Your task to perform on an android device: set an alarm Image 0: 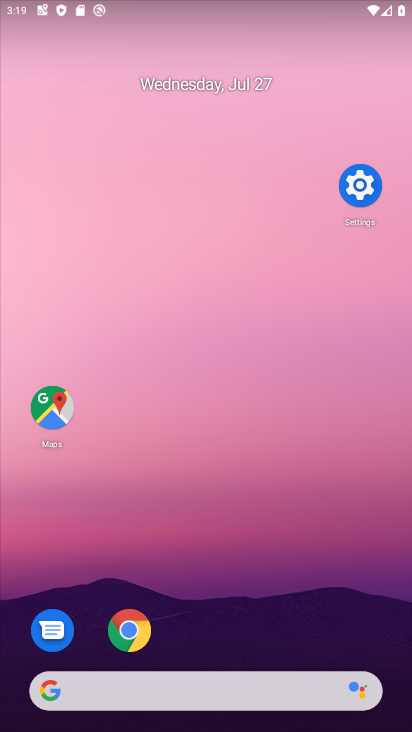
Step 0: press home button
Your task to perform on an android device: set an alarm Image 1: 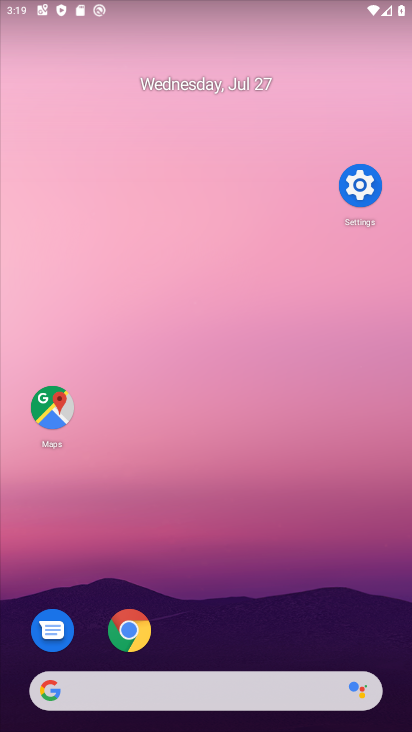
Step 1: press home button
Your task to perform on an android device: set an alarm Image 2: 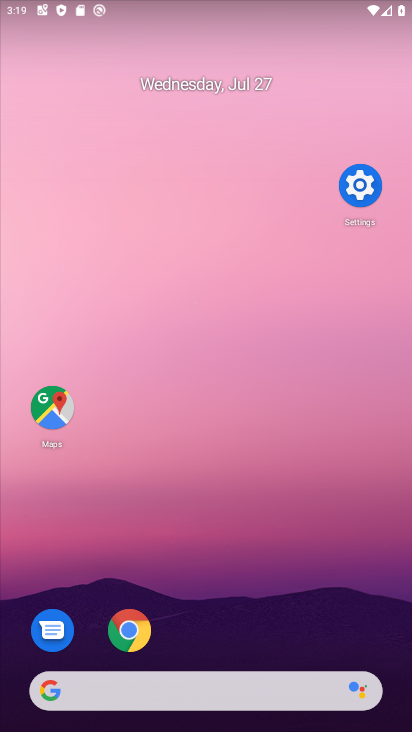
Step 2: drag from (273, 615) to (214, 74)
Your task to perform on an android device: set an alarm Image 3: 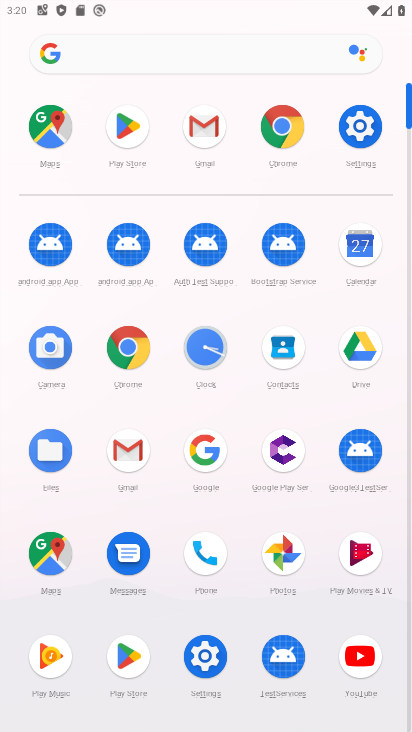
Step 3: click (193, 347)
Your task to perform on an android device: set an alarm Image 4: 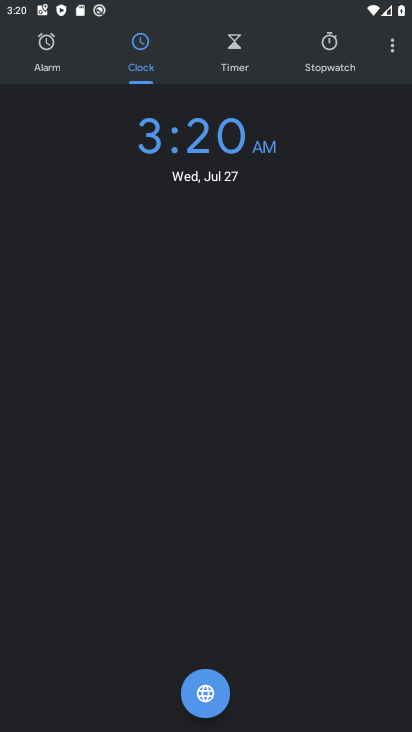
Step 4: click (45, 43)
Your task to perform on an android device: set an alarm Image 5: 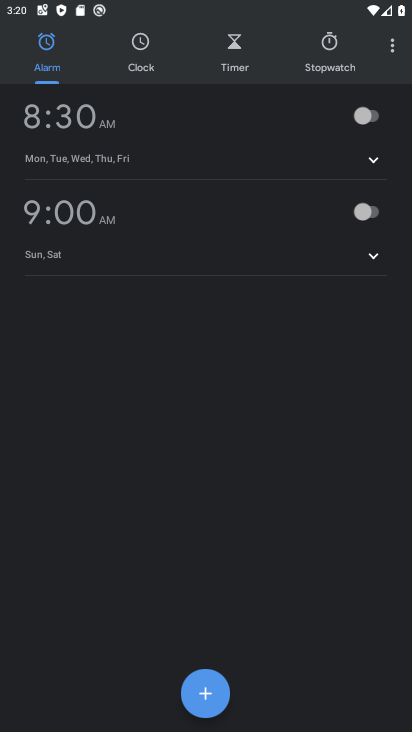
Step 5: click (208, 690)
Your task to perform on an android device: set an alarm Image 6: 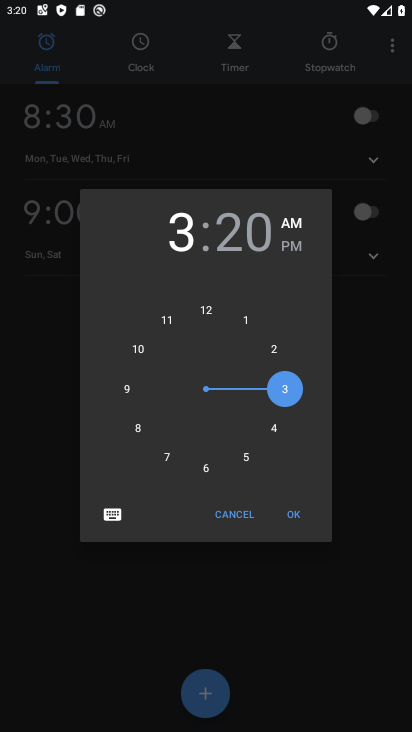
Step 6: click (203, 471)
Your task to perform on an android device: set an alarm Image 7: 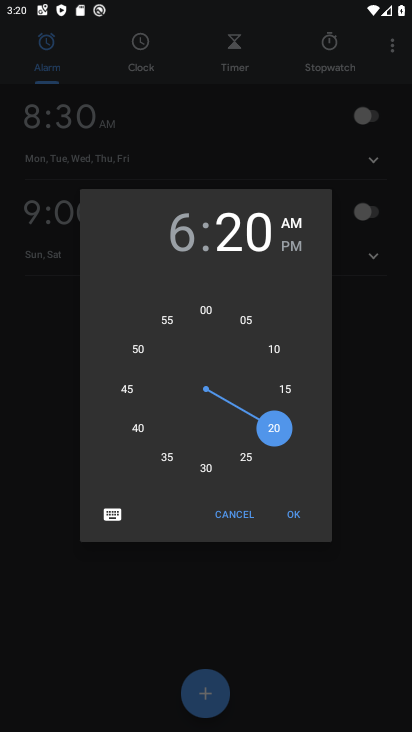
Step 7: click (297, 512)
Your task to perform on an android device: set an alarm Image 8: 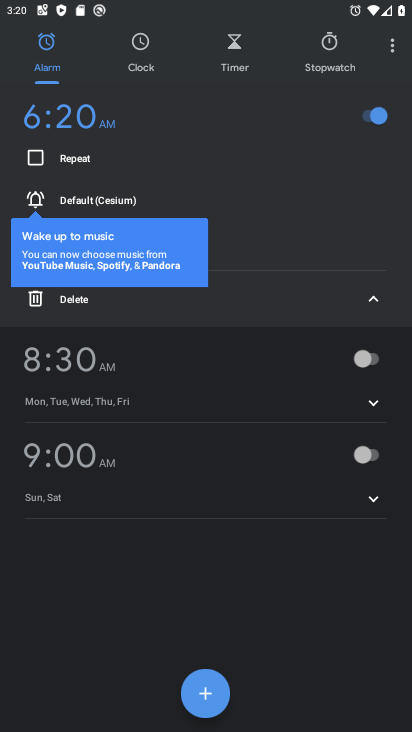
Step 8: task complete